Your task to perform on an android device: set default search engine in the chrome app Image 0: 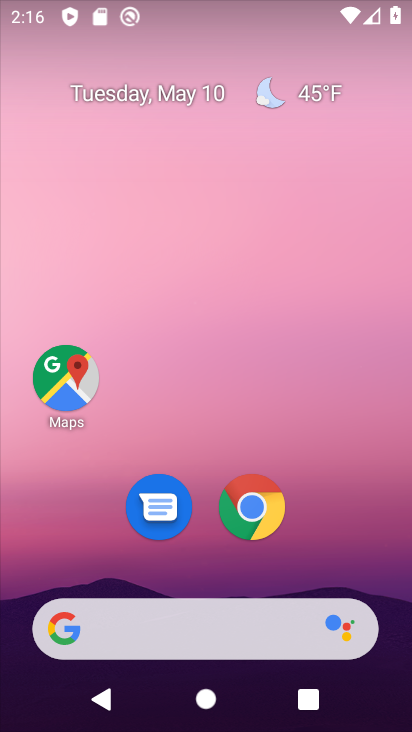
Step 0: click (243, 509)
Your task to perform on an android device: set default search engine in the chrome app Image 1: 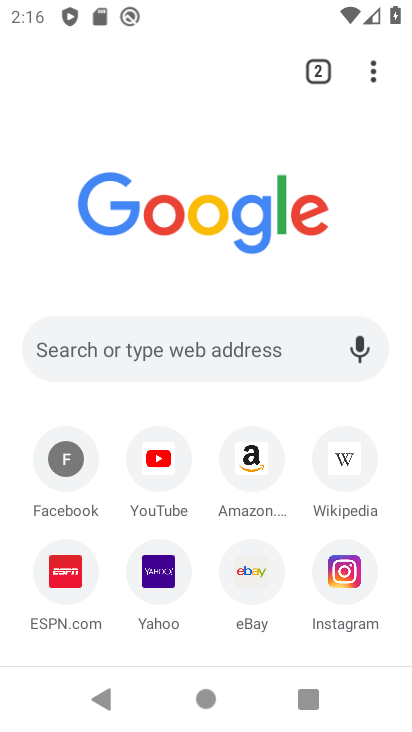
Step 1: click (376, 74)
Your task to perform on an android device: set default search engine in the chrome app Image 2: 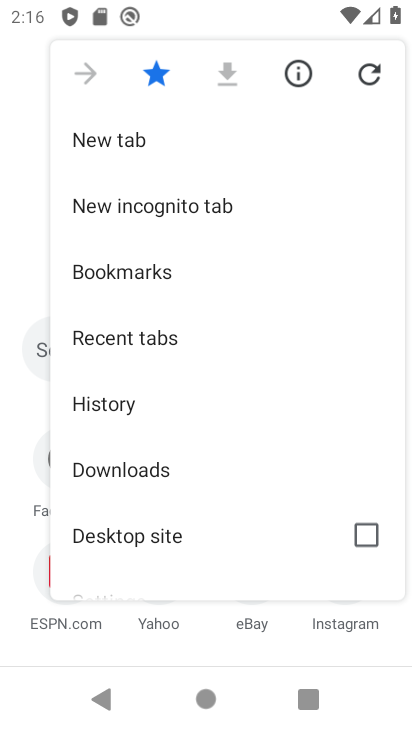
Step 2: drag from (143, 554) to (135, 214)
Your task to perform on an android device: set default search engine in the chrome app Image 3: 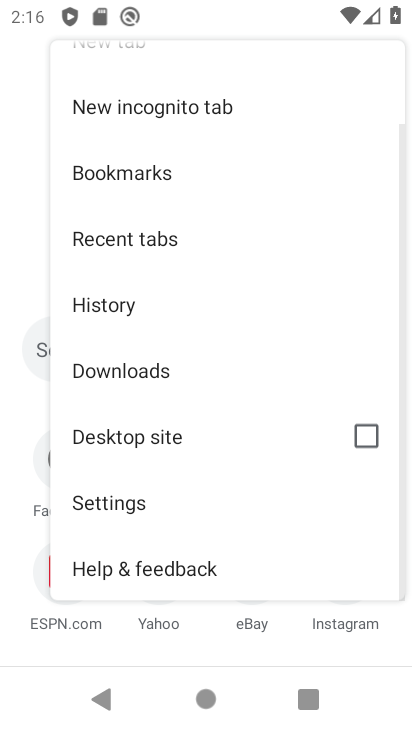
Step 3: click (86, 506)
Your task to perform on an android device: set default search engine in the chrome app Image 4: 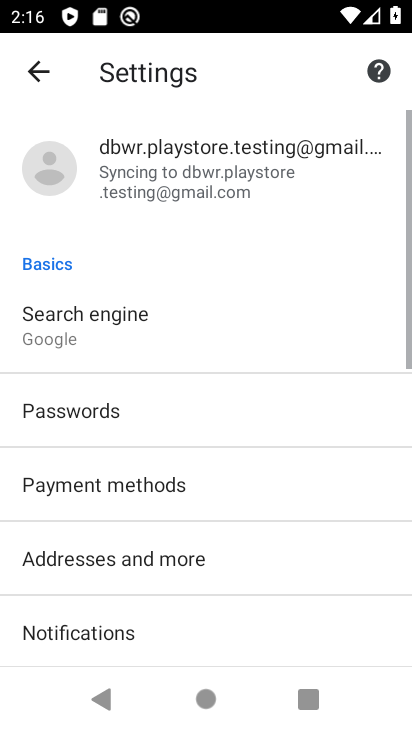
Step 4: click (117, 329)
Your task to perform on an android device: set default search engine in the chrome app Image 5: 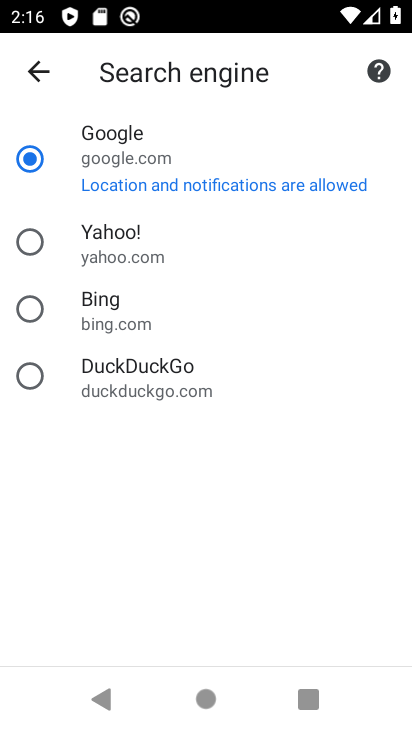
Step 5: task complete